Your task to perform on an android device: turn off priority inbox in the gmail app Image 0: 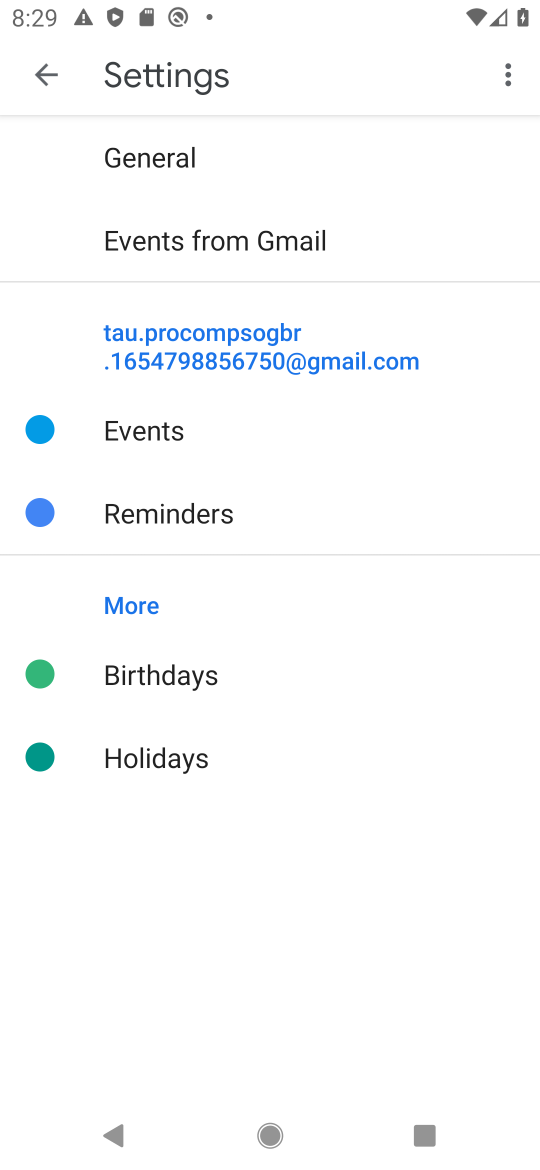
Step 0: press home button
Your task to perform on an android device: turn off priority inbox in the gmail app Image 1: 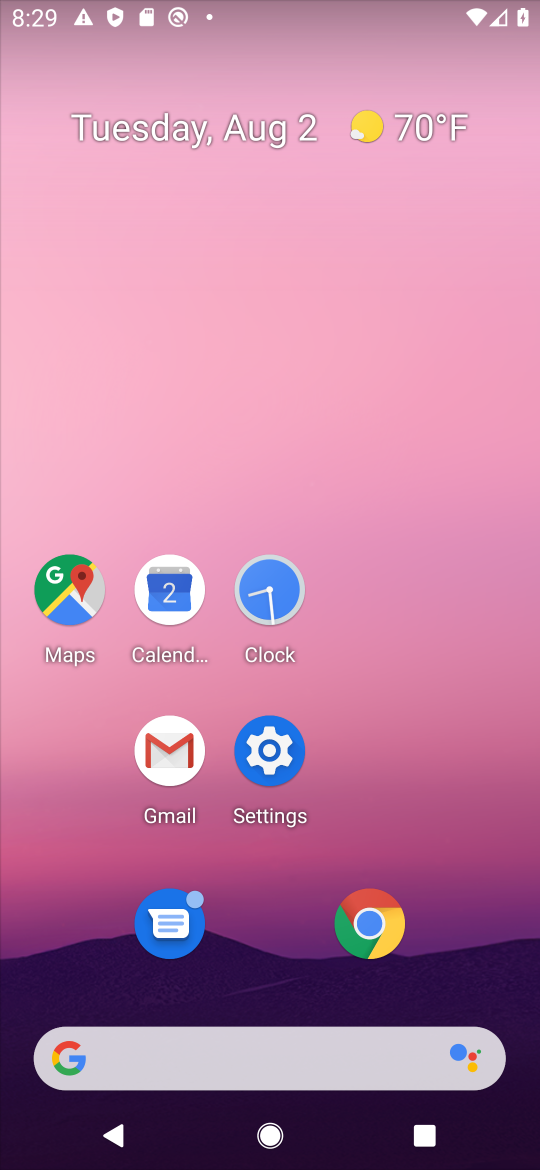
Step 1: click (165, 755)
Your task to perform on an android device: turn off priority inbox in the gmail app Image 2: 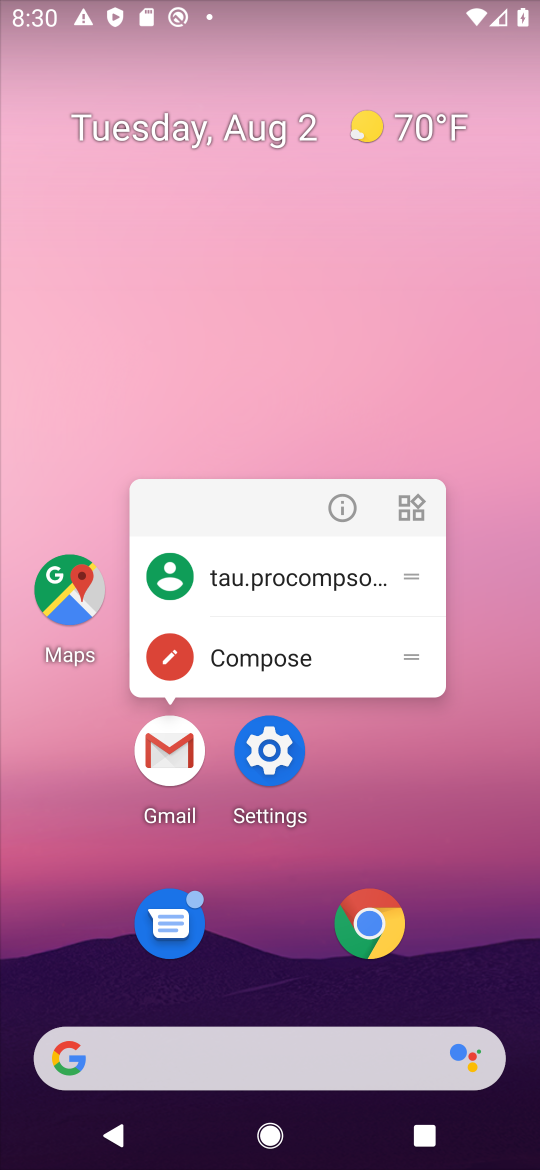
Step 2: click (155, 770)
Your task to perform on an android device: turn off priority inbox in the gmail app Image 3: 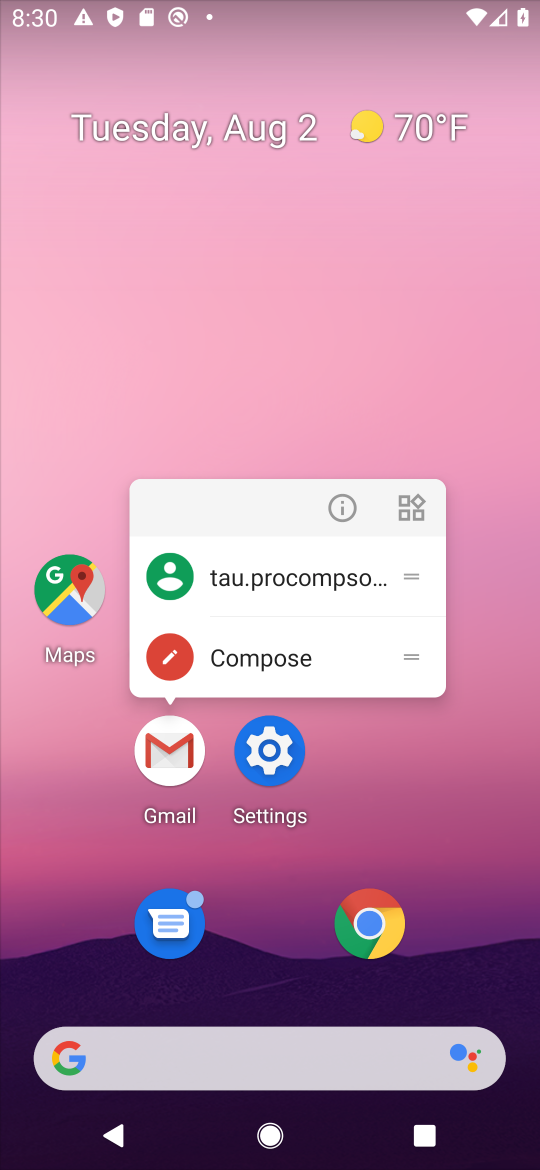
Step 3: click (155, 763)
Your task to perform on an android device: turn off priority inbox in the gmail app Image 4: 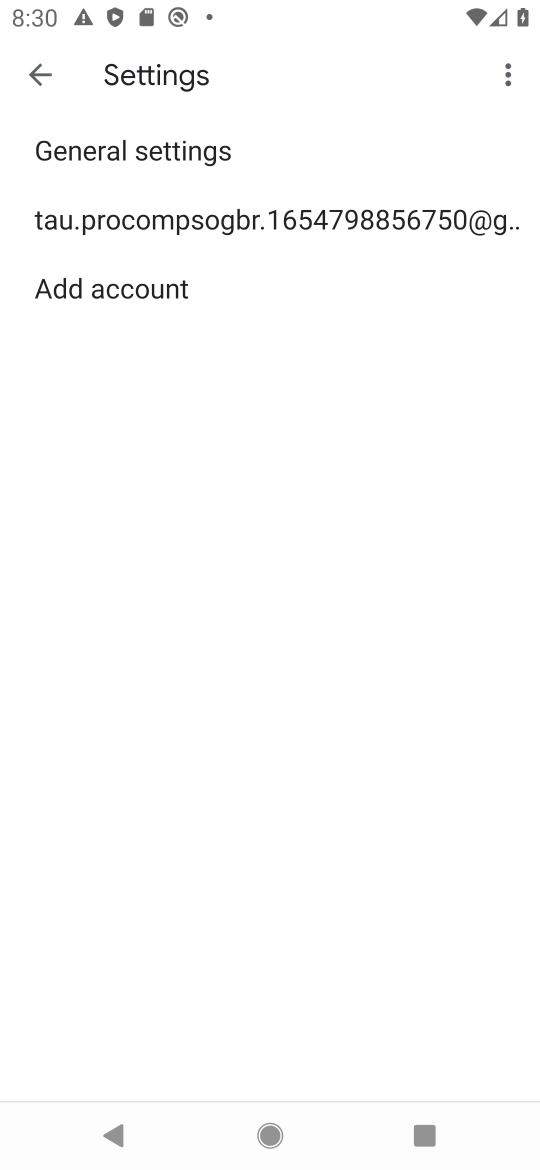
Step 4: click (122, 219)
Your task to perform on an android device: turn off priority inbox in the gmail app Image 5: 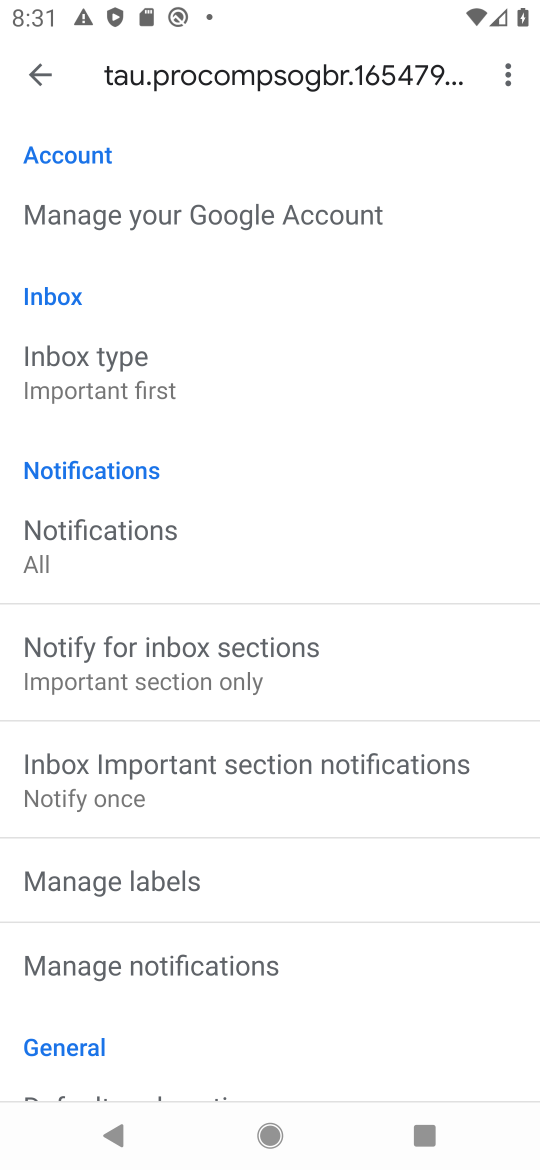
Step 5: click (28, 66)
Your task to perform on an android device: turn off priority inbox in the gmail app Image 6: 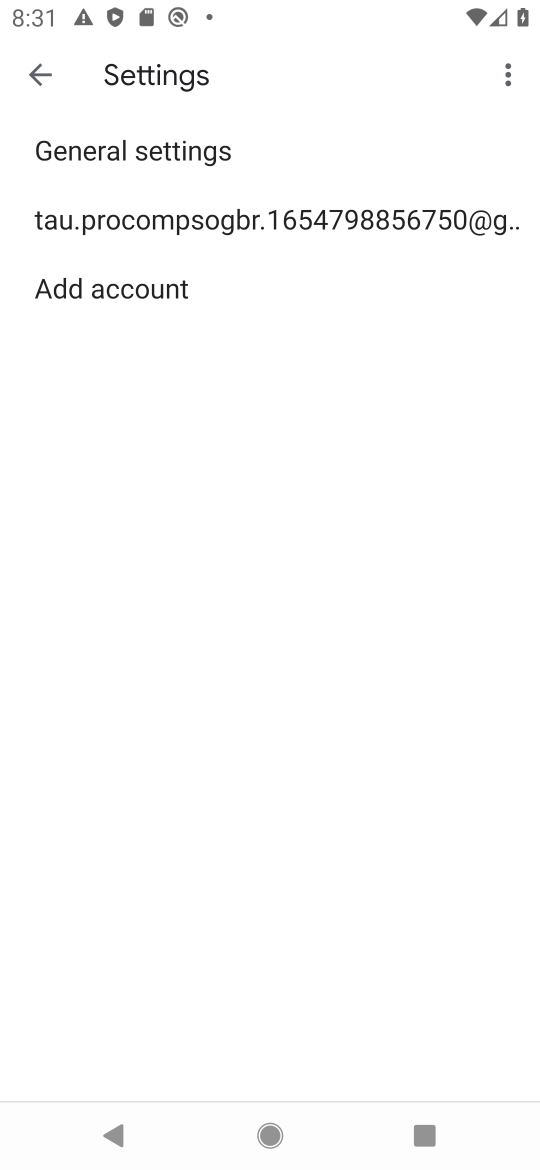
Step 6: click (188, 224)
Your task to perform on an android device: turn off priority inbox in the gmail app Image 7: 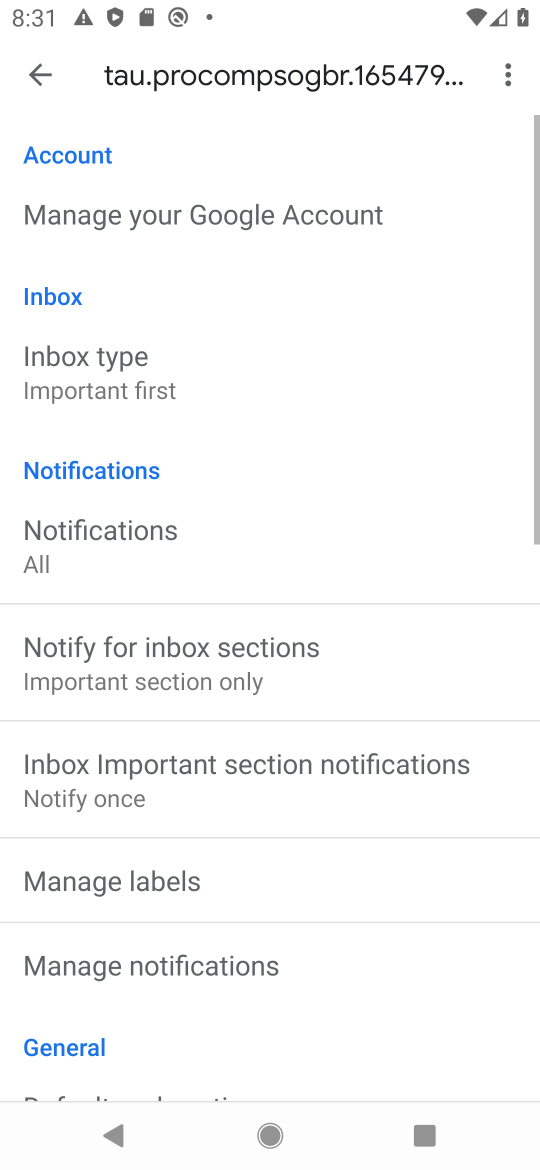
Step 7: click (121, 358)
Your task to perform on an android device: turn off priority inbox in the gmail app Image 8: 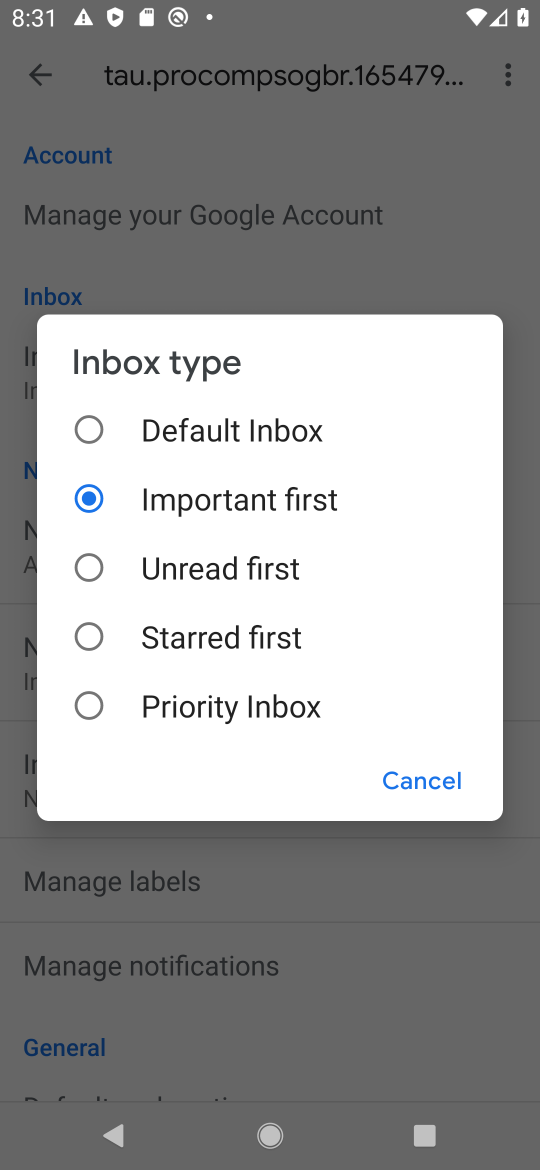
Step 8: task complete